Your task to perform on an android device: Go to sound settings Image 0: 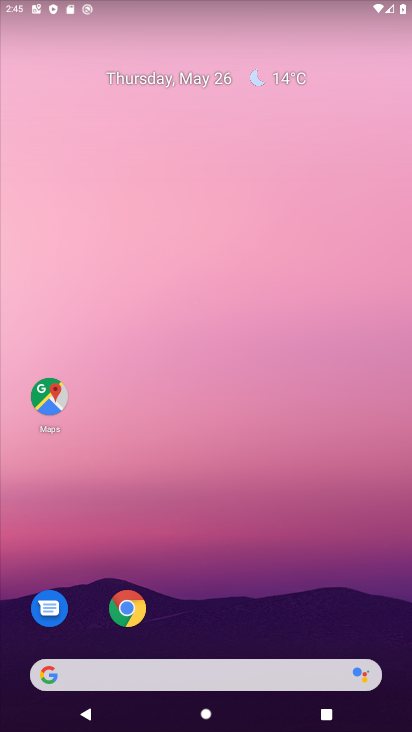
Step 0: drag from (321, 508) to (319, 36)
Your task to perform on an android device: Go to sound settings Image 1: 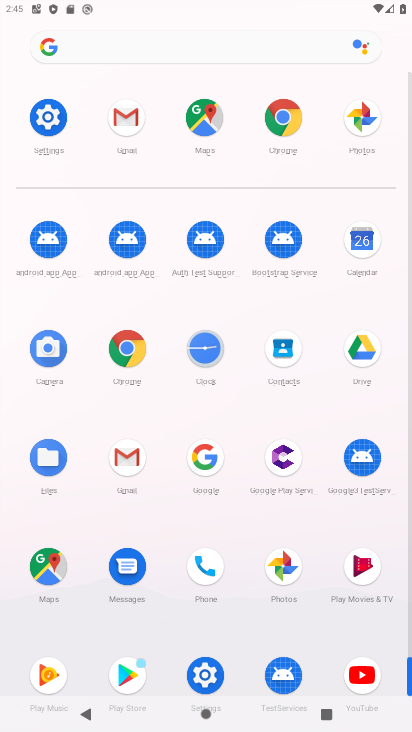
Step 1: click (30, 111)
Your task to perform on an android device: Go to sound settings Image 2: 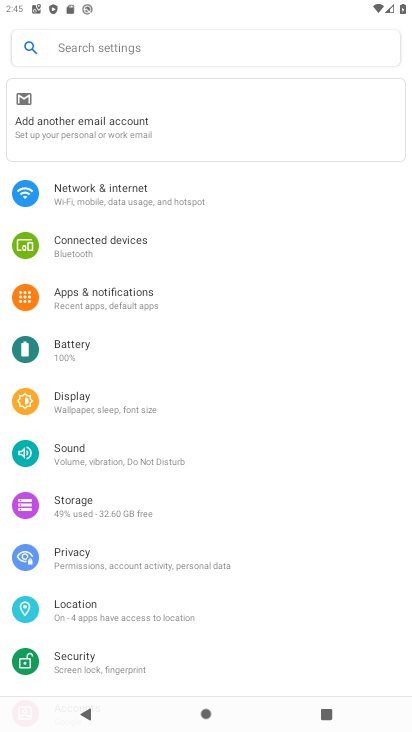
Step 2: click (115, 471)
Your task to perform on an android device: Go to sound settings Image 3: 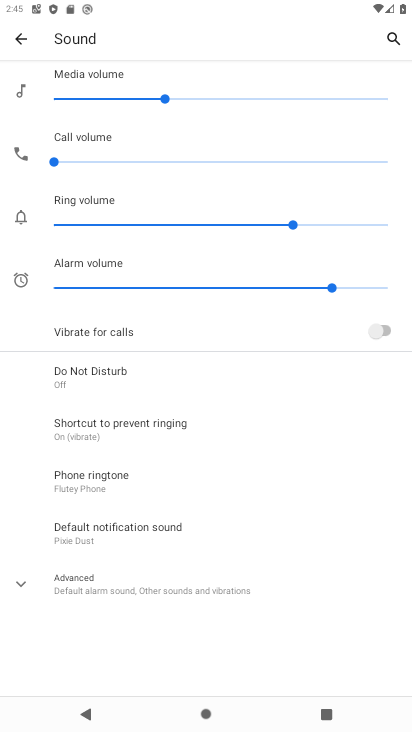
Step 3: task complete